Your task to perform on an android device: turn smart compose on in the gmail app Image 0: 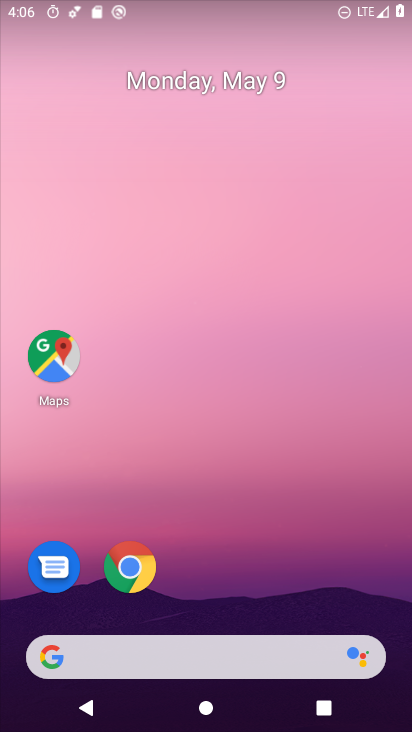
Step 0: drag from (244, 594) to (249, 145)
Your task to perform on an android device: turn smart compose on in the gmail app Image 1: 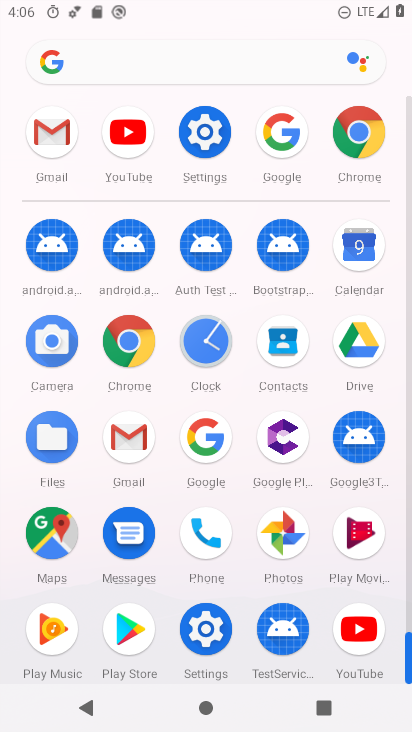
Step 1: click (51, 151)
Your task to perform on an android device: turn smart compose on in the gmail app Image 2: 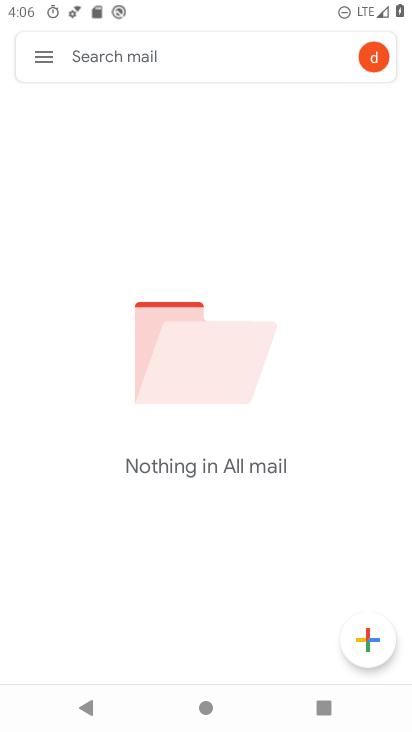
Step 2: click (39, 63)
Your task to perform on an android device: turn smart compose on in the gmail app Image 3: 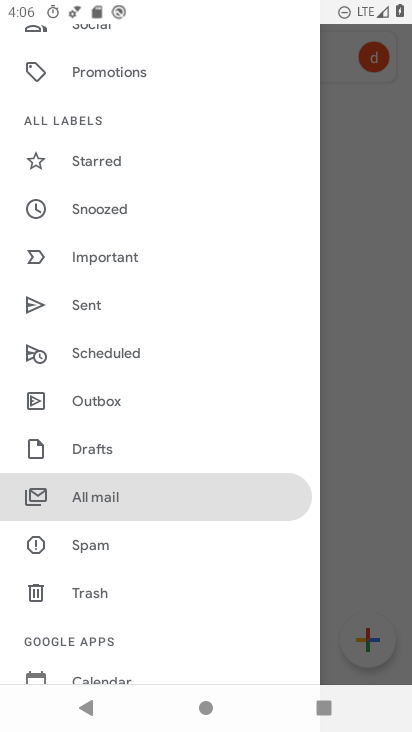
Step 3: drag from (134, 660) to (146, 314)
Your task to perform on an android device: turn smart compose on in the gmail app Image 4: 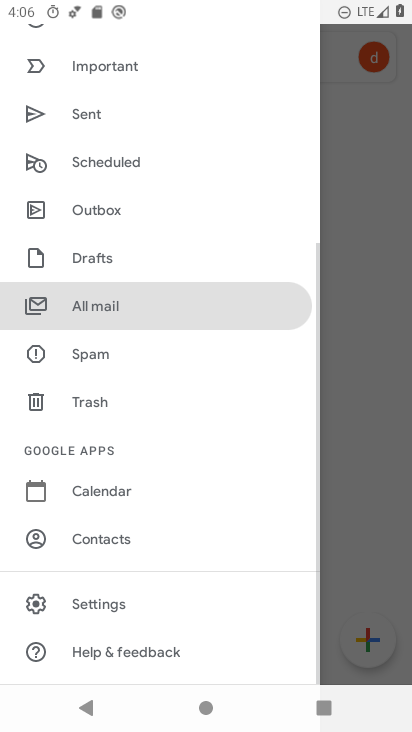
Step 4: click (119, 604)
Your task to perform on an android device: turn smart compose on in the gmail app Image 5: 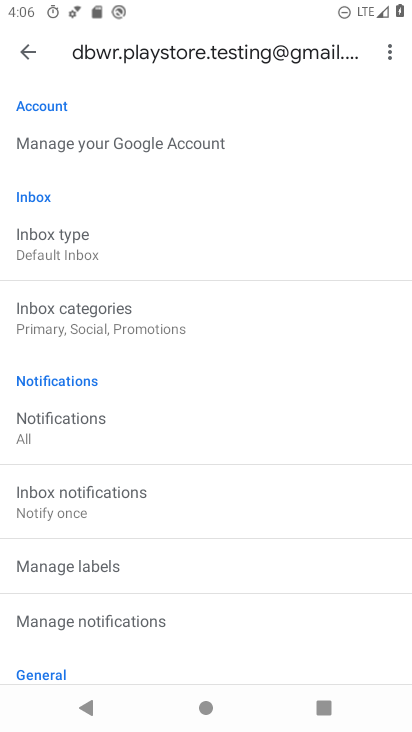
Step 5: task complete